Your task to perform on an android device: Do I have any events today? Image 0: 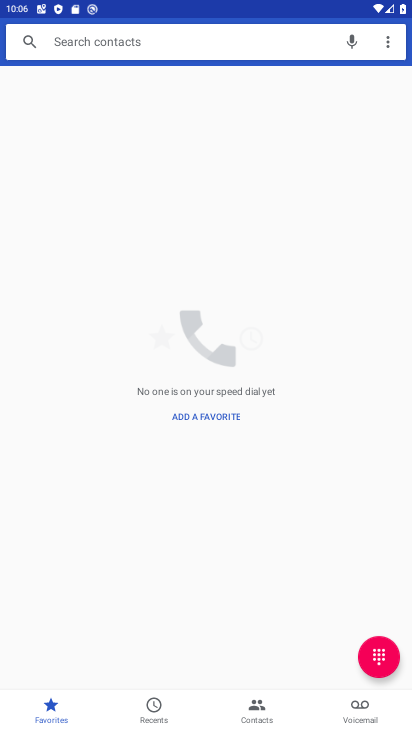
Step 0: press home button
Your task to perform on an android device: Do I have any events today? Image 1: 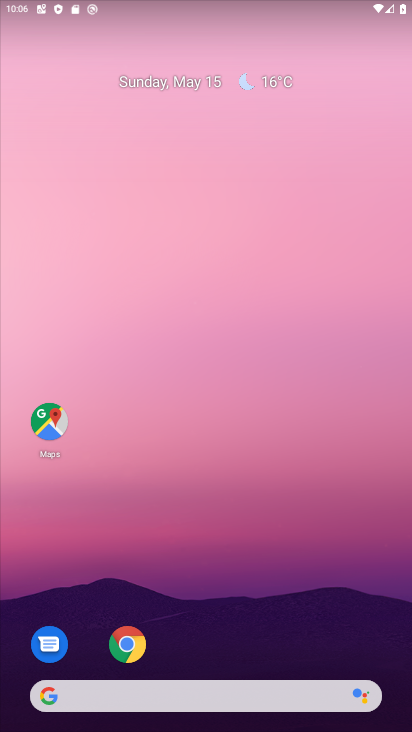
Step 1: drag from (303, 611) to (304, 100)
Your task to perform on an android device: Do I have any events today? Image 2: 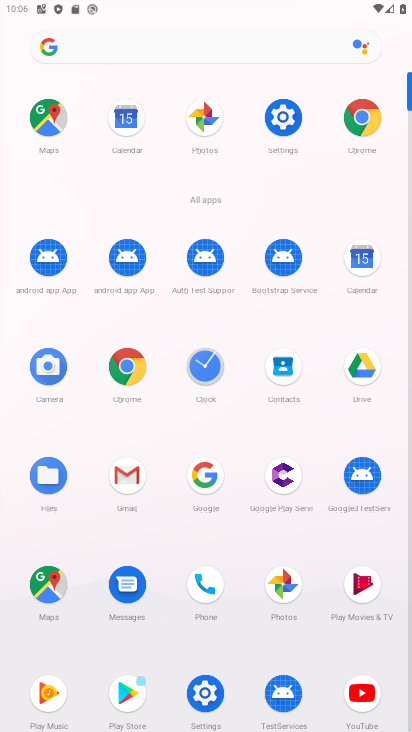
Step 2: click (360, 257)
Your task to perform on an android device: Do I have any events today? Image 3: 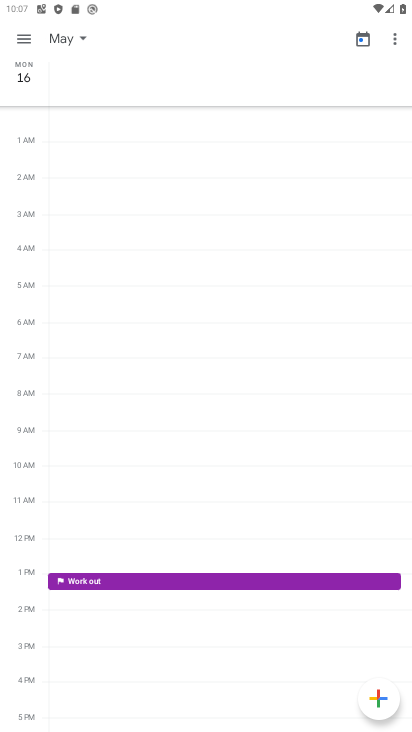
Step 3: click (24, 44)
Your task to perform on an android device: Do I have any events today? Image 4: 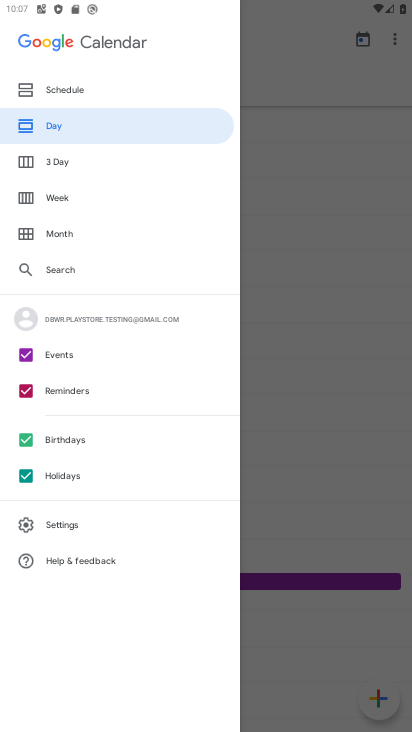
Step 4: drag from (262, 176) to (34, 178)
Your task to perform on an android device: Do I have any events today? Image 5: 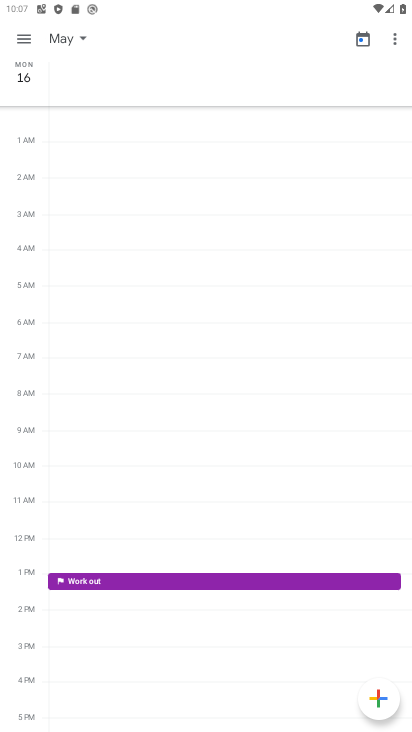
Step 5: drag from (195, 476) to (179, 274)
Your task to perform on an android device: Do I have any events today? Image 6: 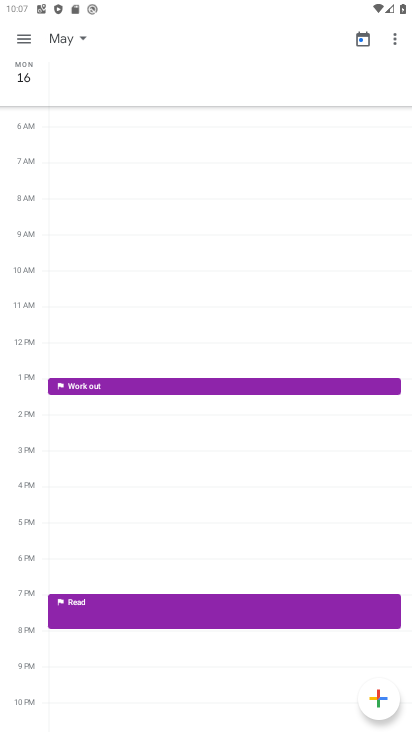
Step 6: click (64, 40)
Your task to perform on an android device: Do I have any events today? Image 7: 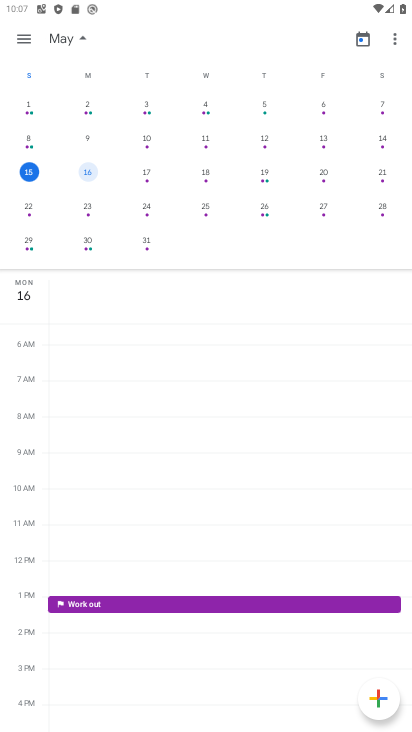
Step 7: click (31, 171)
Your task to perform on an android device: Do I have any events today? Image 8: 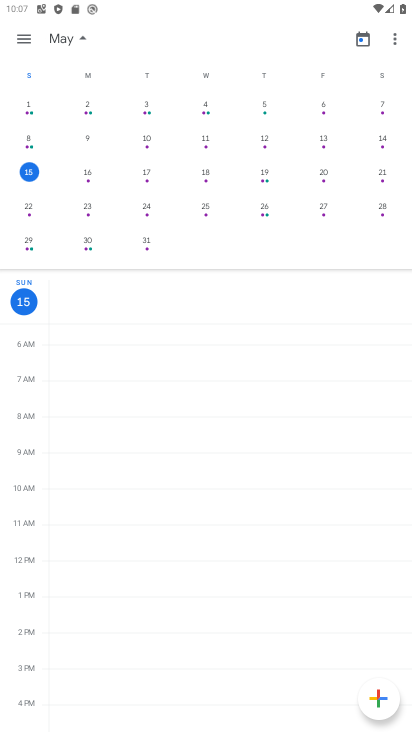
Step 8: task complete